Your task to perform on an android device: change notification settings in the gmail app Image 0: 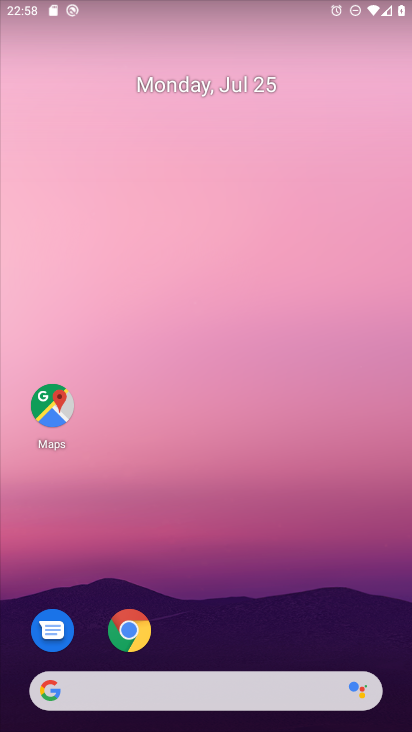
Step 0: drag from (315, 651) to (185, 94)
Your task to perform on an android device: change notification settings in the gmail app Image 1: 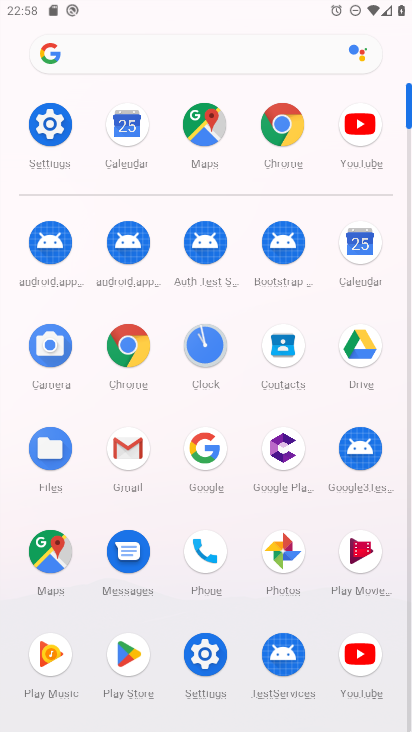
Step 1: click (130, 449)
Your task to perform on an android device: change notification settings in the gmail app Image 2: 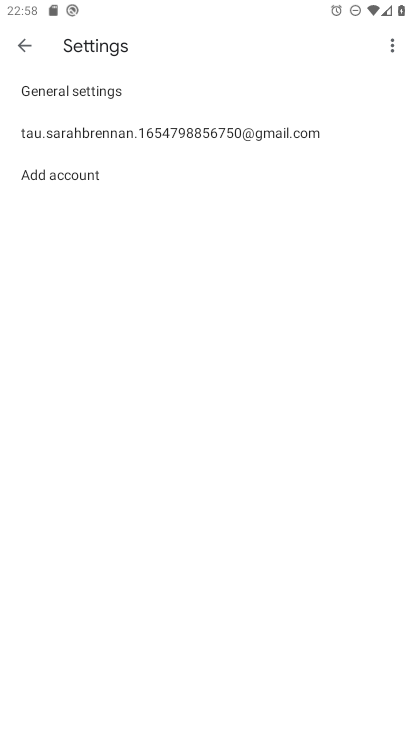
Step 2: click (31, 55)
Your task to perform on an android device: change notification settings in the gmail app Image 3: 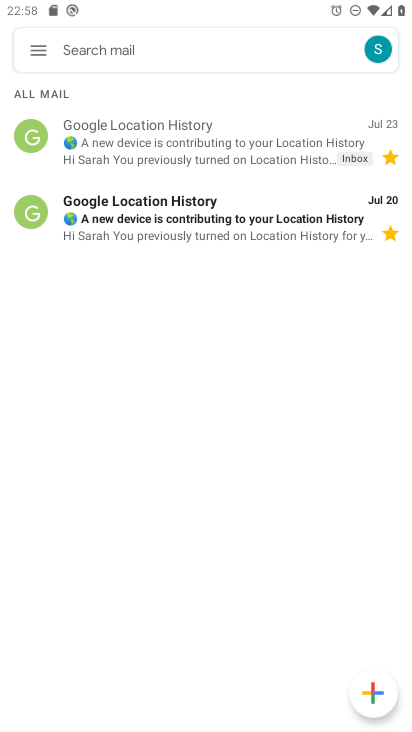
Step 3: click (39, 47)
Your task to perform on an android device: change notification settings in the gmail app Image 4: 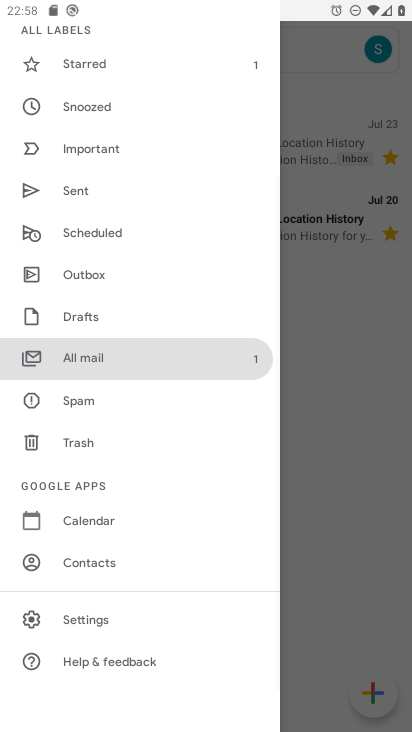
Step 4: click (99, 612)
Your task to perform on an android device: change notification settings in the gmail app Image 5: 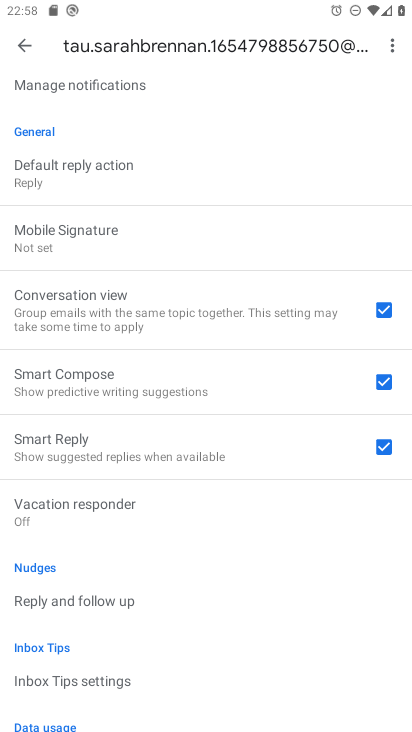
Step 5: drag from (214, 160) to (198, 502)
Your task to perform on an android device: change notification settings in the gmail app Image 6: 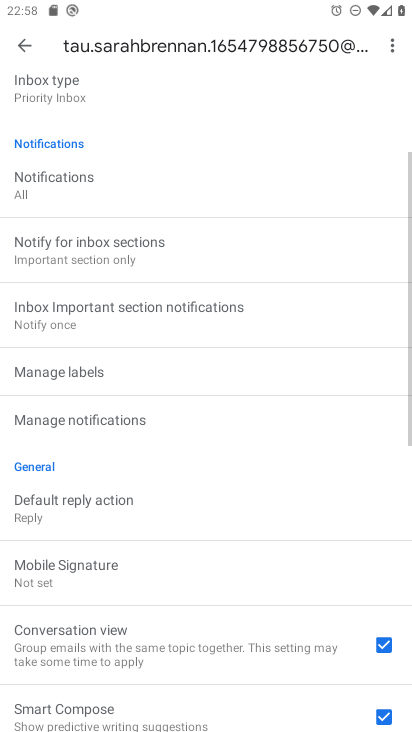
Step 6: click (110, 419)
Your task to perform on an android device: change notification settings in the gmail app Image 7: 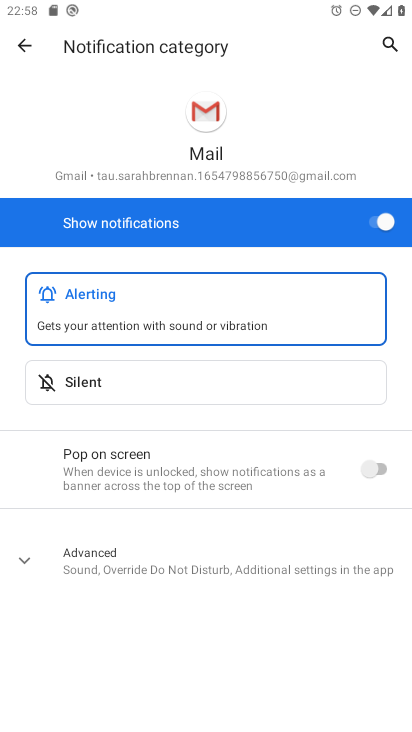
Step 7: click (361, 219)
Your task to perform on an android device: change notification settings in the gmail app Image 8: 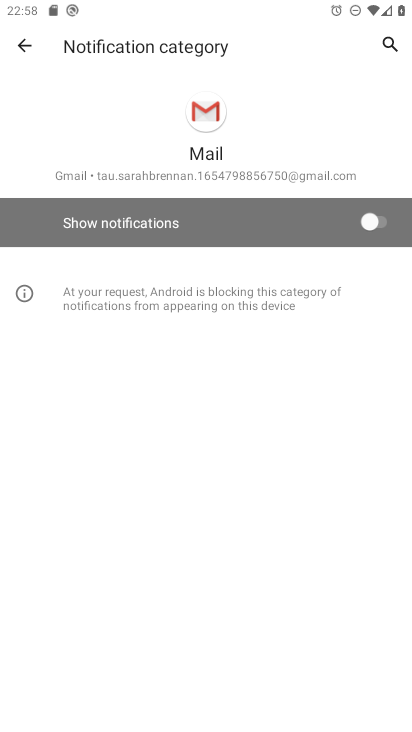
Step 8: task complete